Your task to perform on an android device: open sync settings in chrome Image 0: 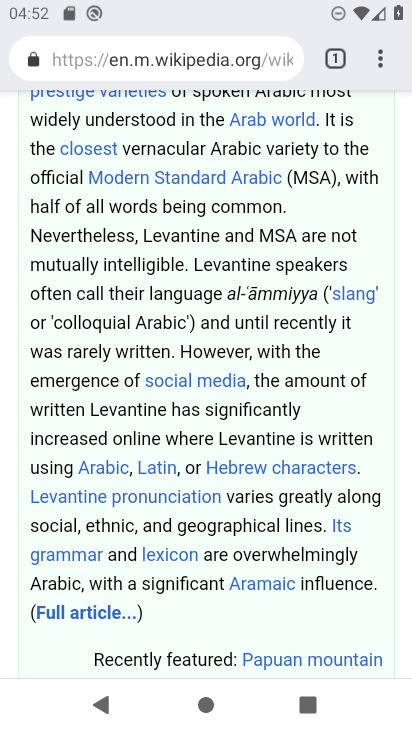
Step 0: press home button
Your task to perform on an android device: open sync settings in chrome Image 1: 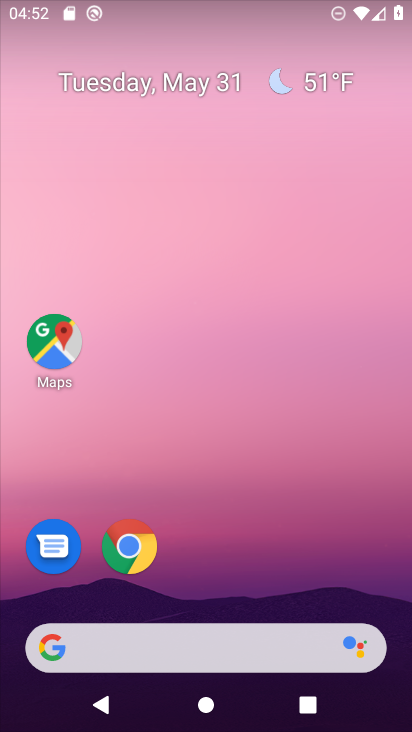
Step 1: click (128, 555)
Your task to perform on an android device: open sync settings in chrome Image 2: 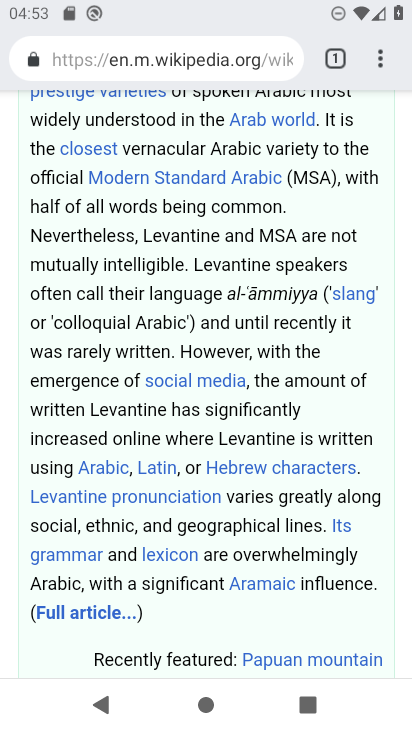
Step 2: click (375, 61)
Your task to perform on an android device: open sync settings in chrome Image 3: 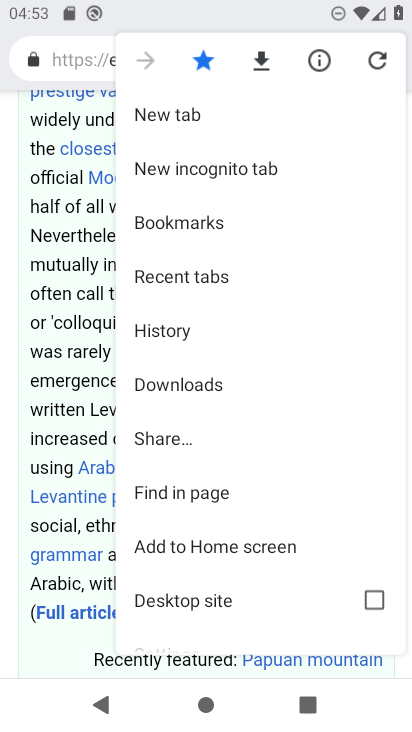
Step 3: drag from (186, 567) to (186, 212)
Your task to perform on an android device: open sync settings in chrome Image 4: 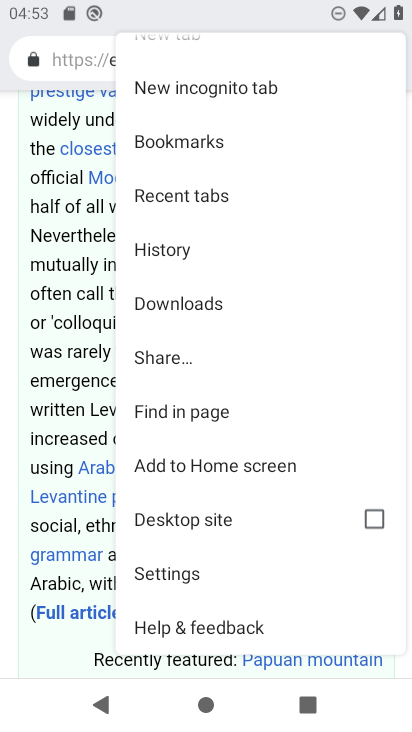
Step 4: click (185, 579)
Your task to perform on an android device: open sync settings in chrome Image 5: 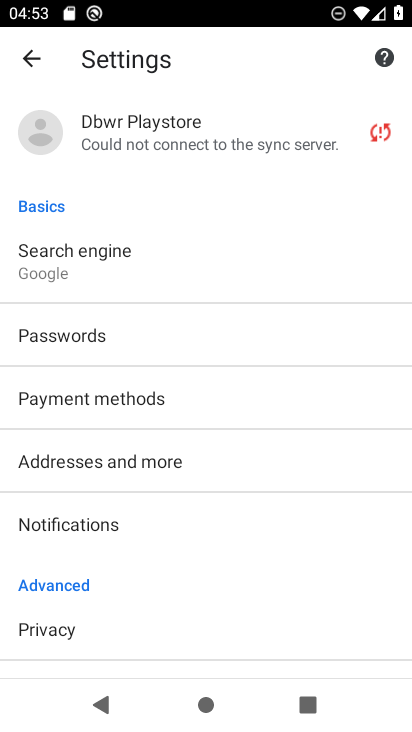
Step 5: drag from (164, 598) to (203, 273)
Your task to perform on an android device: open sync settings in chrome Image 6: 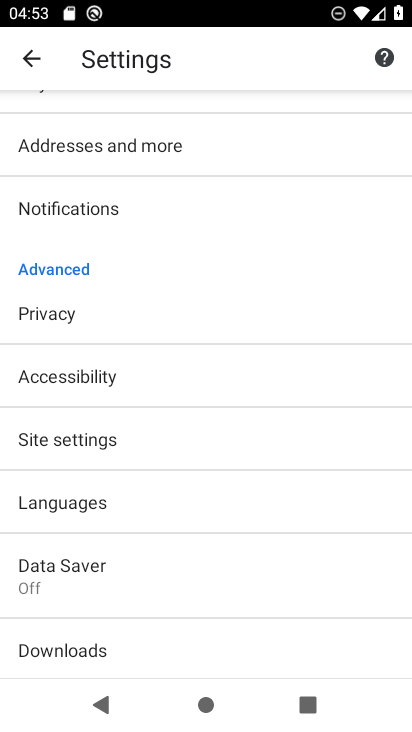
Step 6: drag from (91, 618) to (218, 234)
Your task to perform on an android device: open sync settings in chrome Image 7: 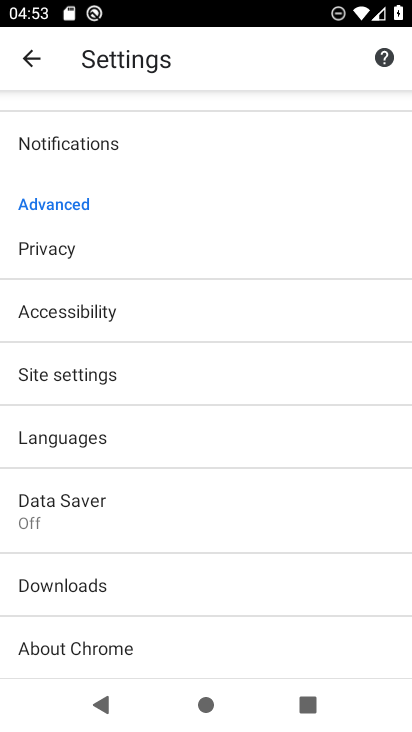
Step 7: drag from (131, 627) to (152, 244)
Your task to perform on an android device: open sync settings in chrome Image 8: 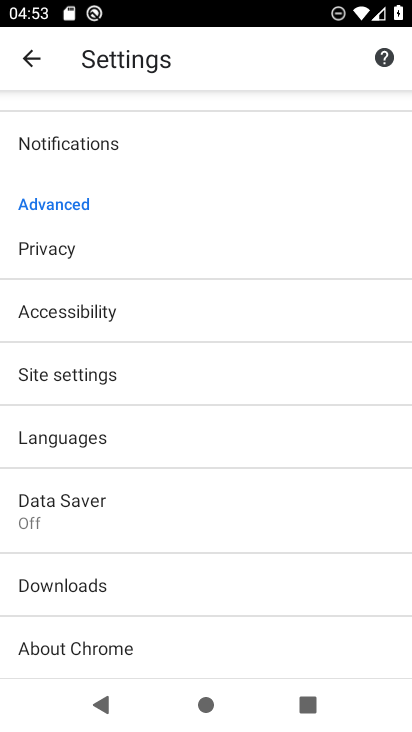
Step 8: drag from (177, 243) to (140, 403)
Your task to perform on an android device: open sync settings in chrome Image 9: 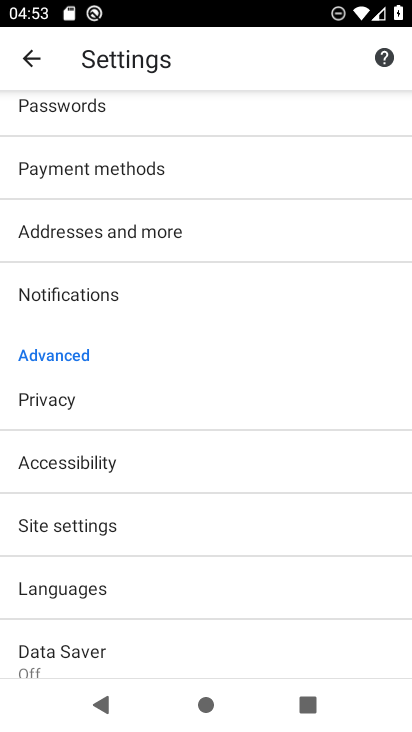
Step 9: drag from (169, 207) to (102, 453)
Your task to perform on an android device: open sync settings in chrome Image 10: 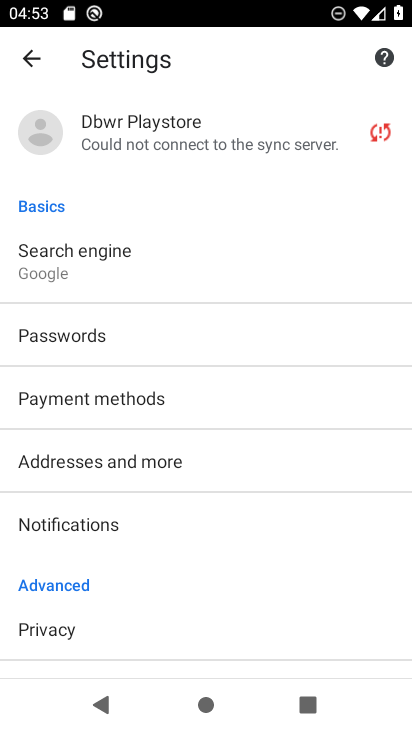
Step 10: click (176, 153)
Your task to perform on an android device: open sync settings in chrome Image 11: 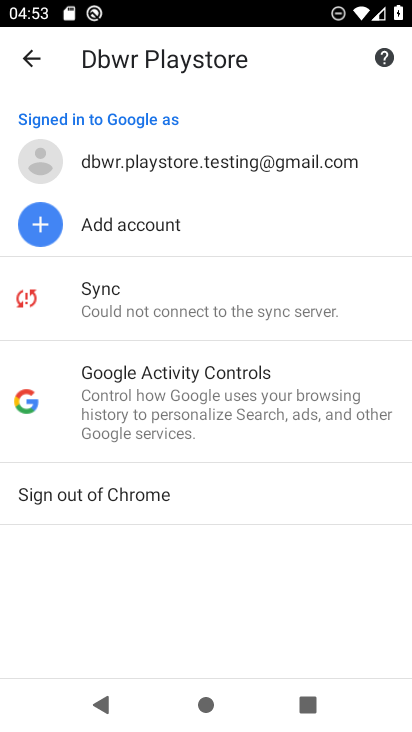
Step 11: click (145, 295)
Your task to perform on an android device: open sync settings in chrome Image 12: 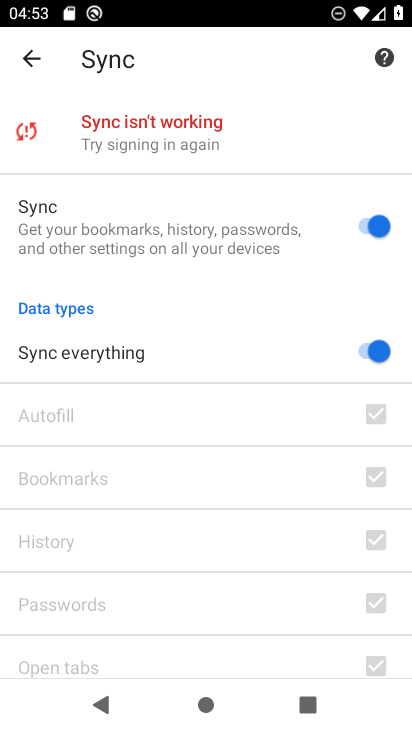
Step 12: task complete